Your task to perform on an android device: turn off smart reply in the gmail app Image 0: 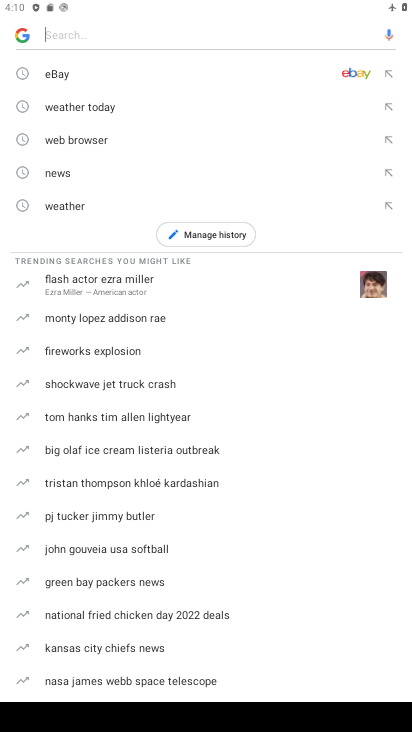
Step 0: press home button
Your task to perform on an android device: turn off smart reply in the gmail app Image 1: 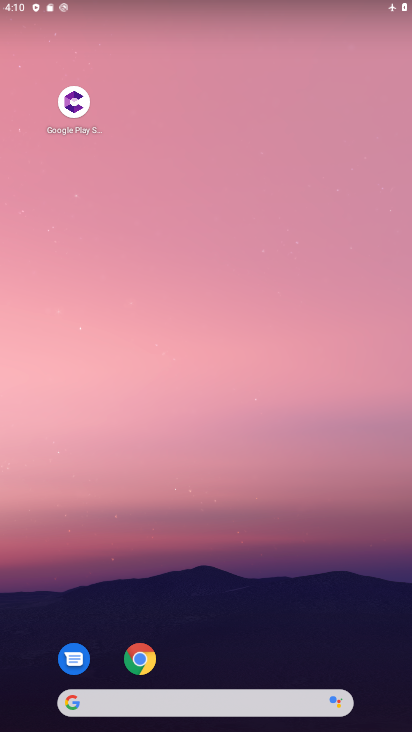
Step 1: drag from (367, 641) to (366, 182)
Your task to perform on an android device: turn off smart reply in the gmail app Image 2: 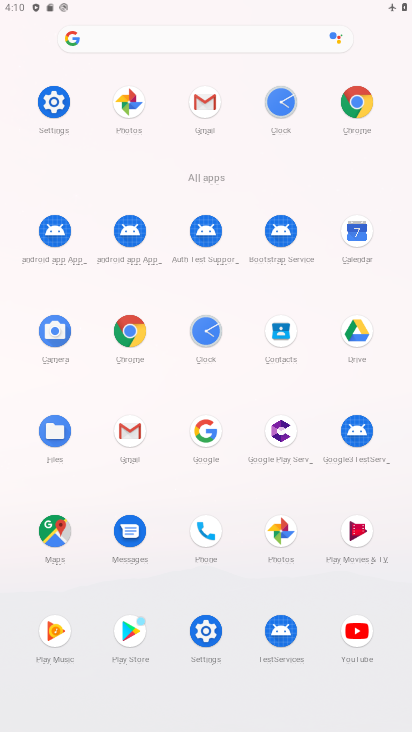
Step 2: click (134, 433)
Your task to perform on an android device: turn off smart reply in the gmail app Image 3: 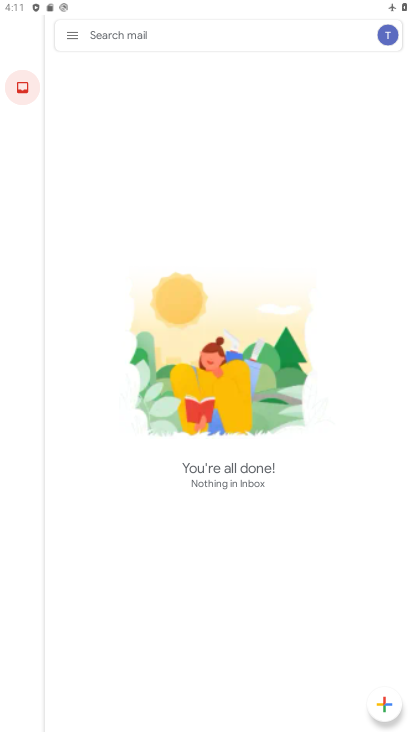
Step 3: click (72, 36)
Your task to perform on an android device: turn off smart reply in the gmail app Image 4: 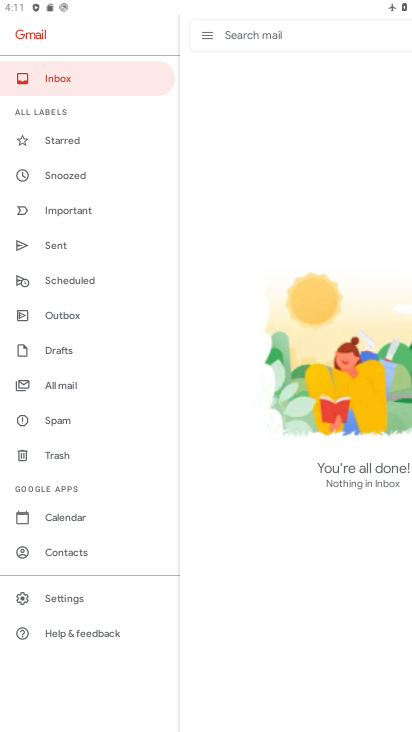
Step 4: click (110, 600)
Your task to perform on an android device: turn off smart reply in the gmail app Image 5: 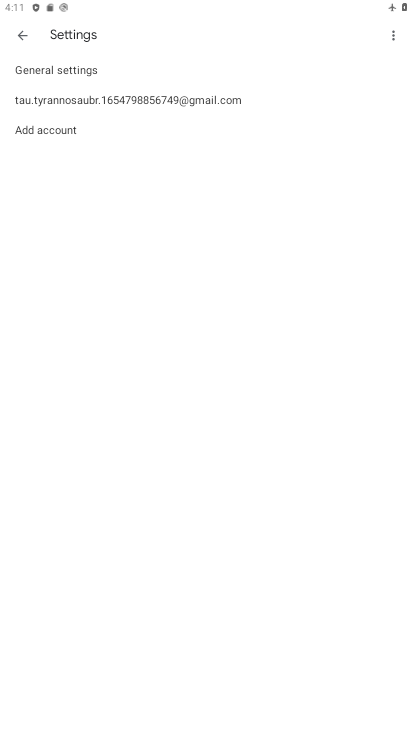
Step 5: click (232, 106)
Your task to perform on an android device: turn off smart reply in the gmail app Image 6: 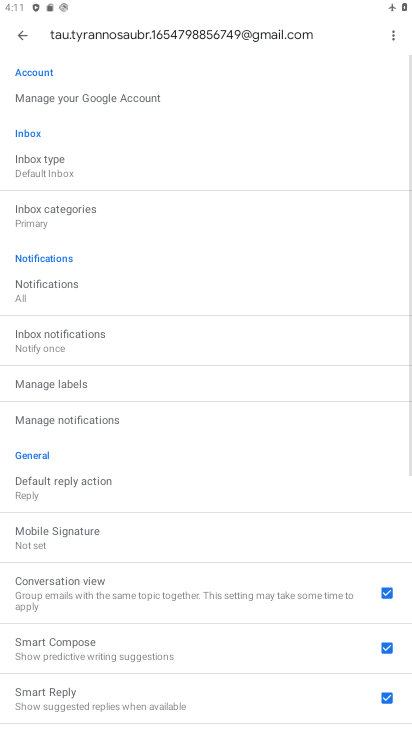
Step 6: drag from (249, 339) to (250, 249)
Your task to perform on an android device: turn off smart reply in the gmail app Image 7: 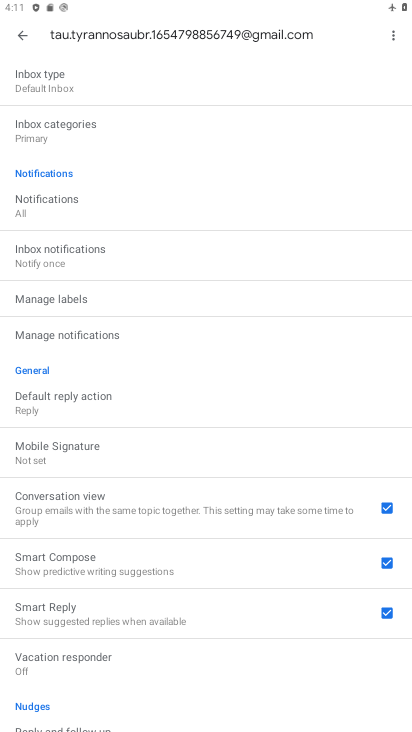
Step 7: drag from (250, 383) to (250, 266)
Your task to perform on an android device: turn off smart reply in the gmail app Image 8: 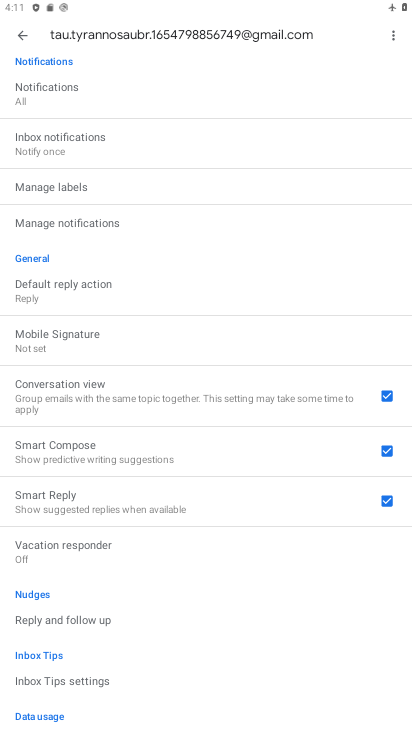
Step 8: drag from (249, 427) to (247, 297)
Your task to perform on an android device: turn off smart reply in the gmail app Image 9: 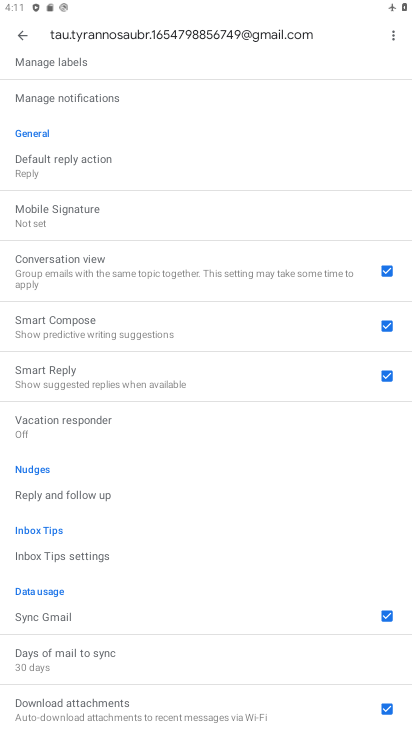
Step 9: click (380, 376)
Your task to perform on an android device: turn off smart reply in the gmail app Image 10: 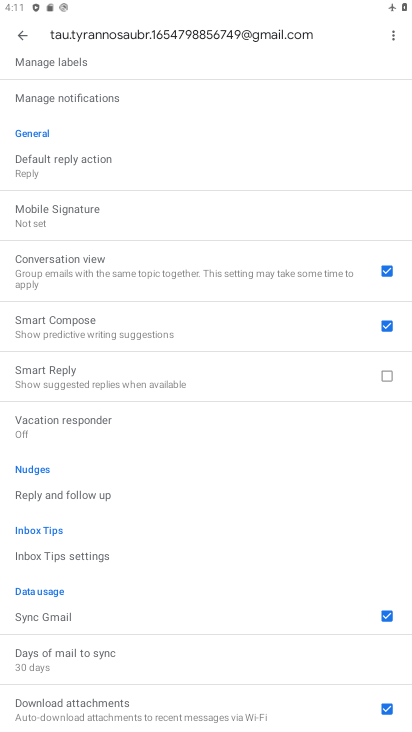
Step 10: task complete